Your task to perform on an android device: Show me productivity apps on the Play Store Image 0: 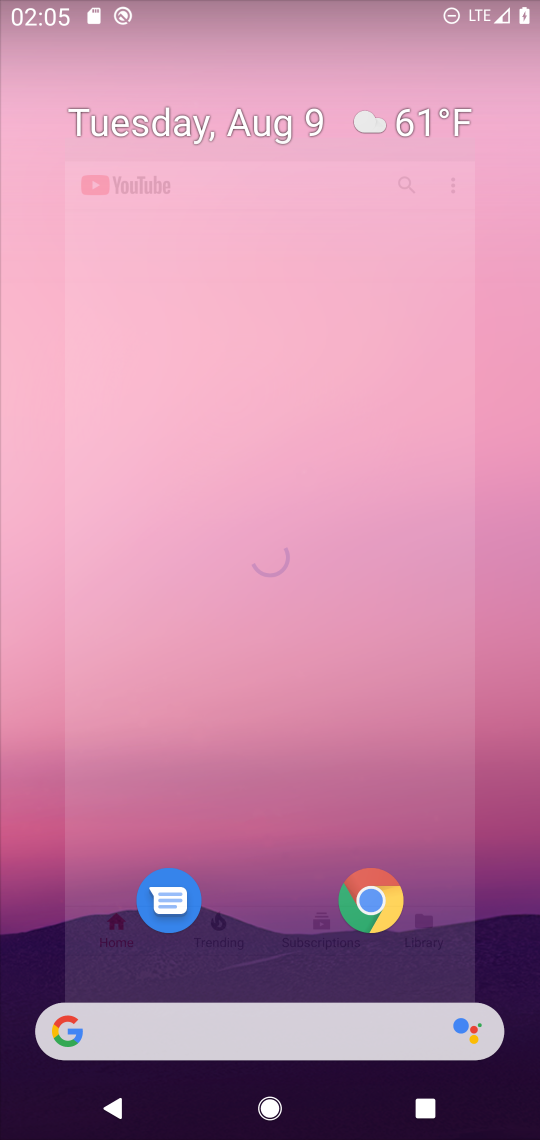
Step 0: press home button
Your task to perform on an android device: Show me productivity apps on the Play Store Image 1: 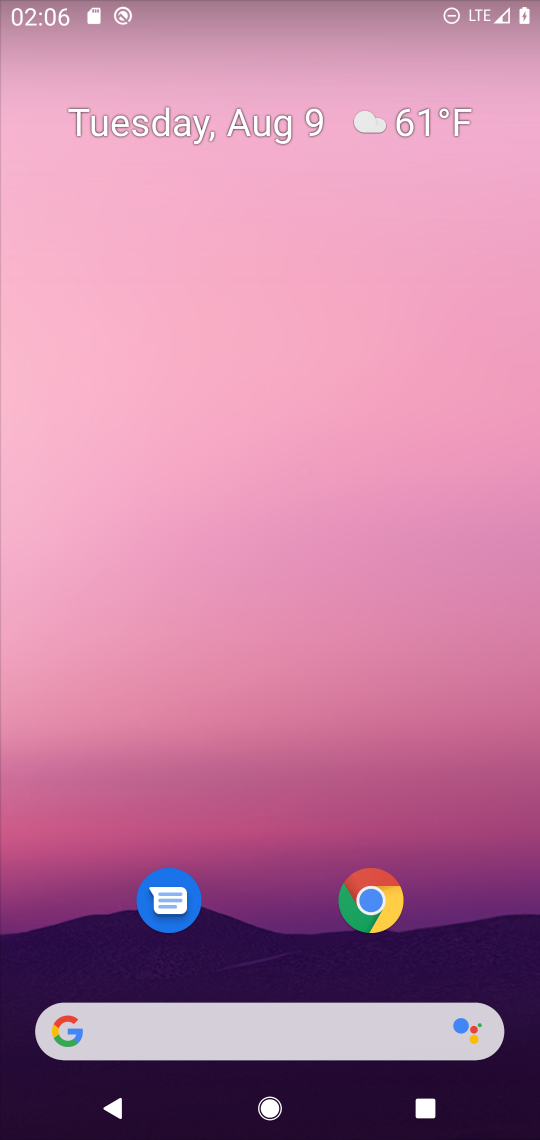
Step 1: drag from (449, 951) to (459, 145)
Your task to perform on an android device: Show me productivity apps on the Play Store Image 2: 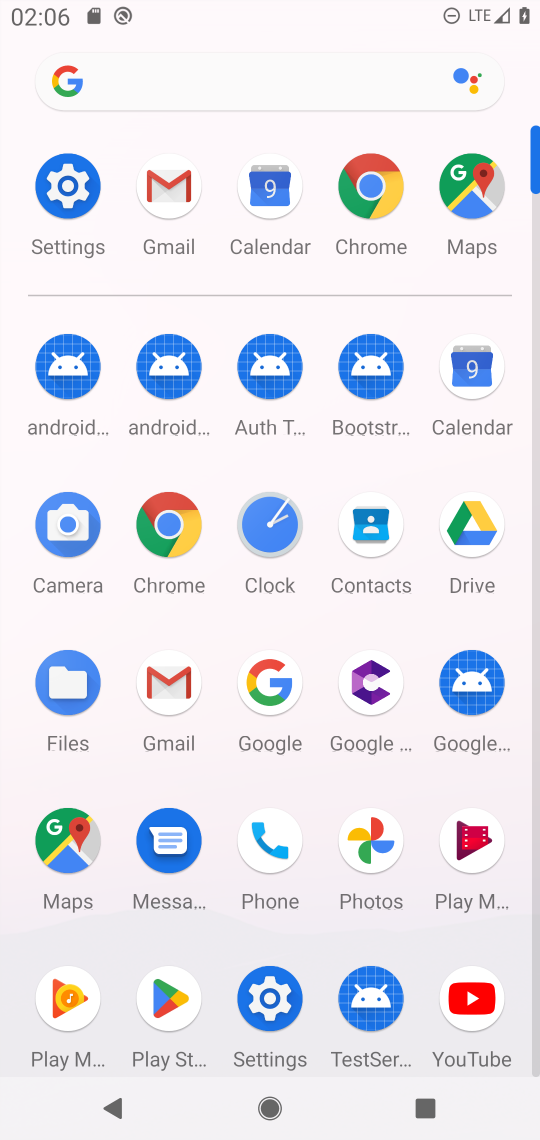
Step 2: click (158, 994)
Your task to perform on an android device: Show me productivity apps on the Play Store Image 3: 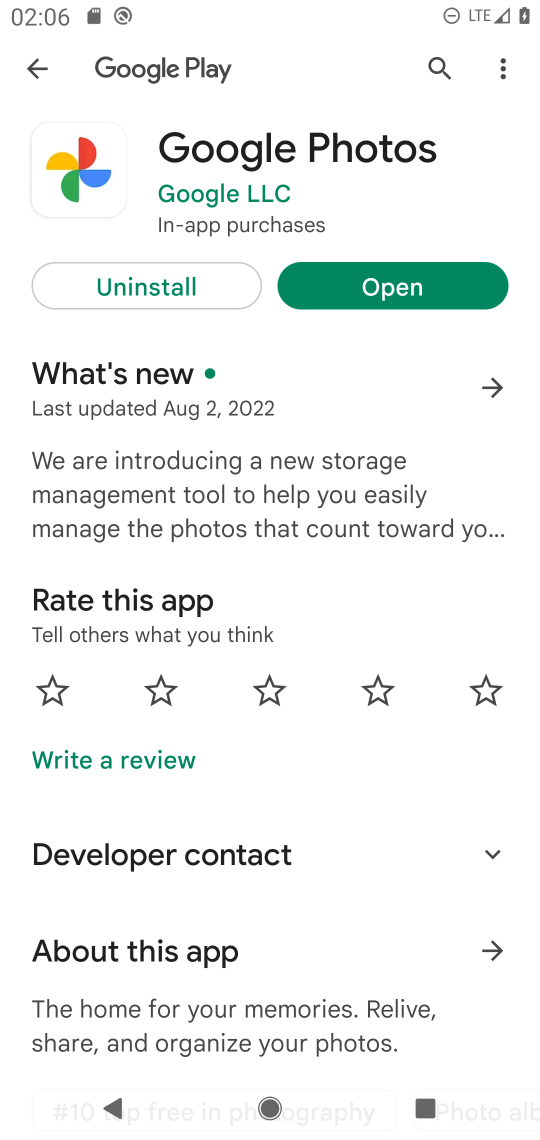
Step 3: press back button
Your task to perform on an android device: Show me productivity apps on the Play Store Image 4: 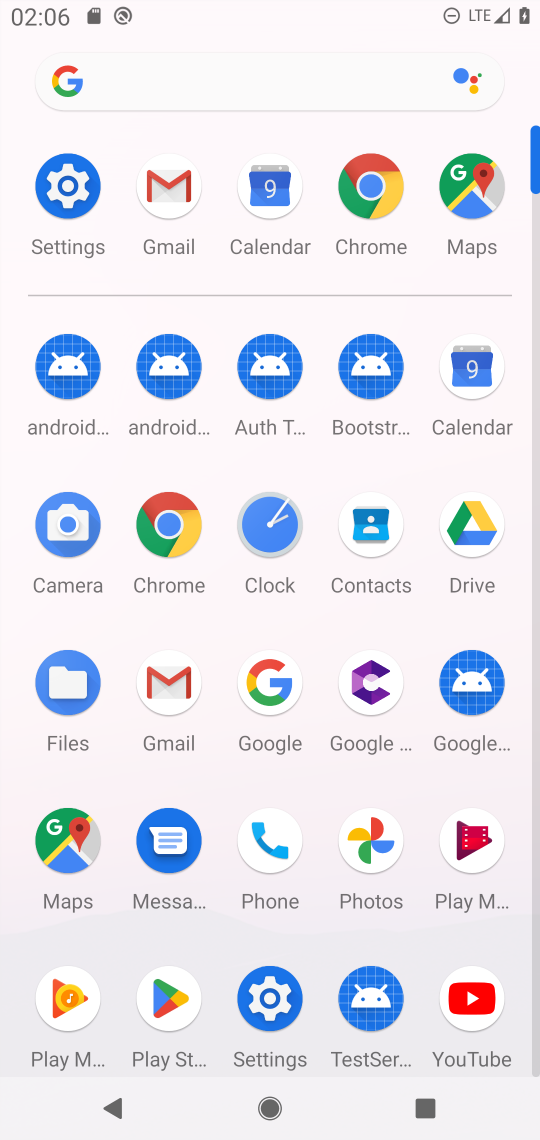
Step 4: click (163, 991)
Your task to perform on an android device: Show me productivity apps on the Play Store Image 5: 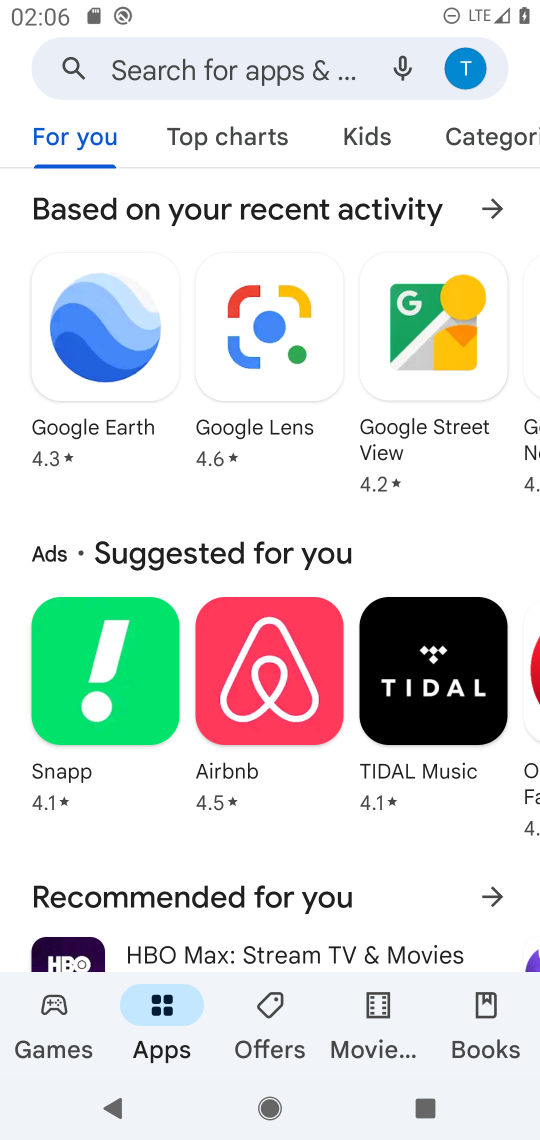
Step 5: task complete